Your task to perform on an android device: Is it going to rain tomorrow? Image 0: 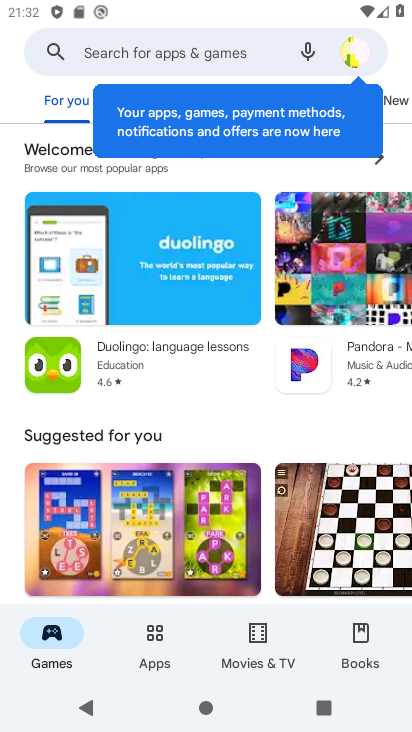
Step 0: press home button
Your task to perform on an android device: Is it going to rain tomorrow? Image 1: 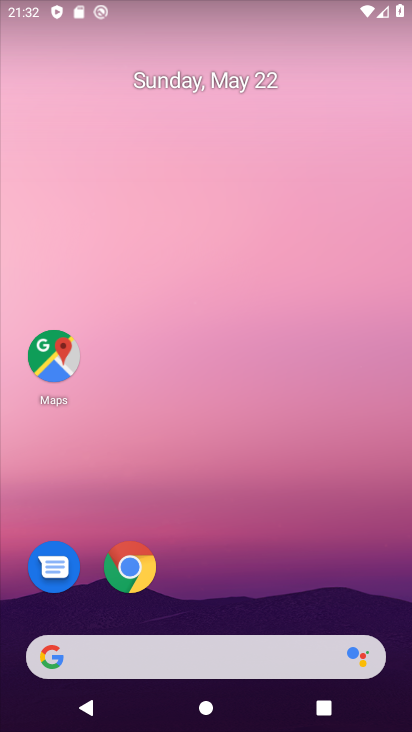
Step 1: drag from (243, 579) to (197, 245)
Your task to perform on an android device: Is it going to rain tomorrow? Image 2: 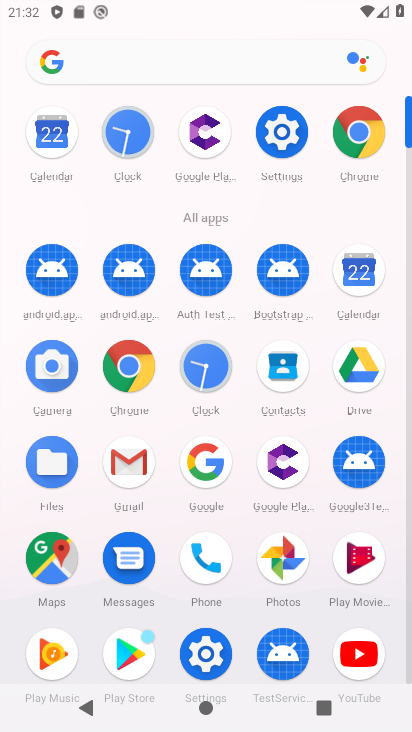
Step 2: click (145, 363)
Your task to perform on an android device: Is it going to rain tomorrow? Image 3: 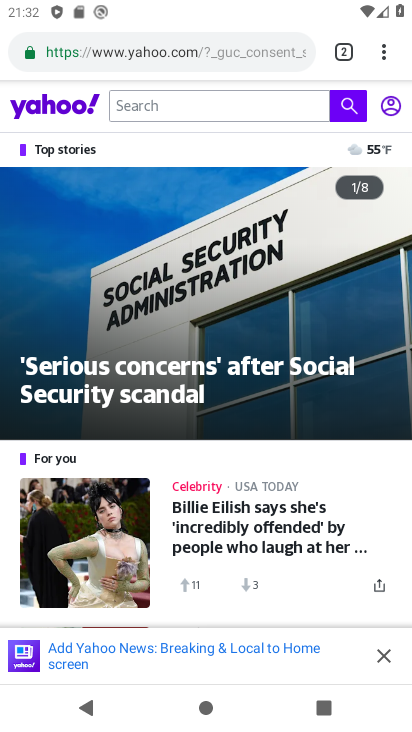
Step 3: click (390, 51)
Your task to perform on an android device: Is it going to rain tomorrow? Image 4: 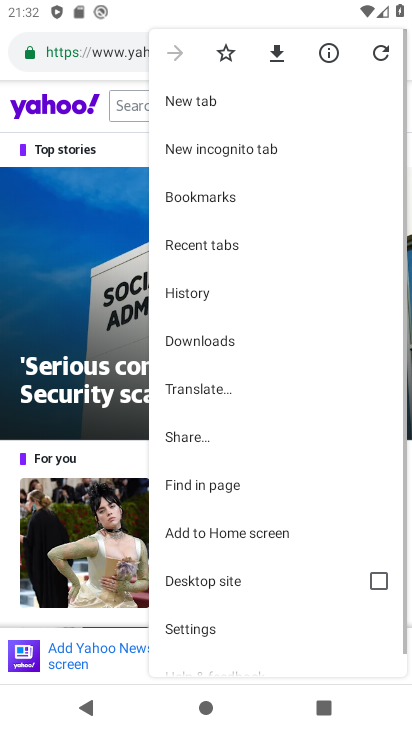
Step 4: click (216, 99)
Your task to perform on an android device: Is it going to rain tomorrow? Image 5: 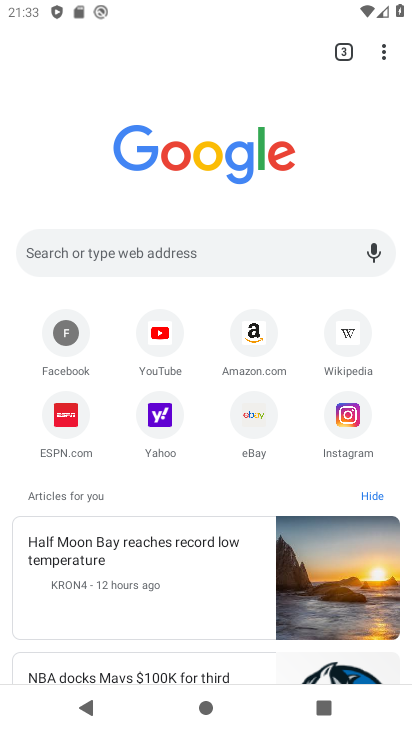
Step 5: click (220, 241)
Your task to perform on an android device: Is it going to rain tomorrow? Image 6: 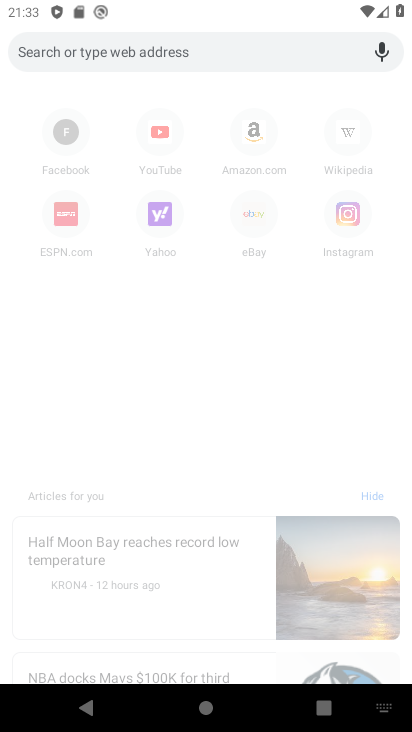
Step 6: type "Is it going to rain tomorrow?"
Your task to perform on an android device: Is it going to rain tomorrow? Image 7: 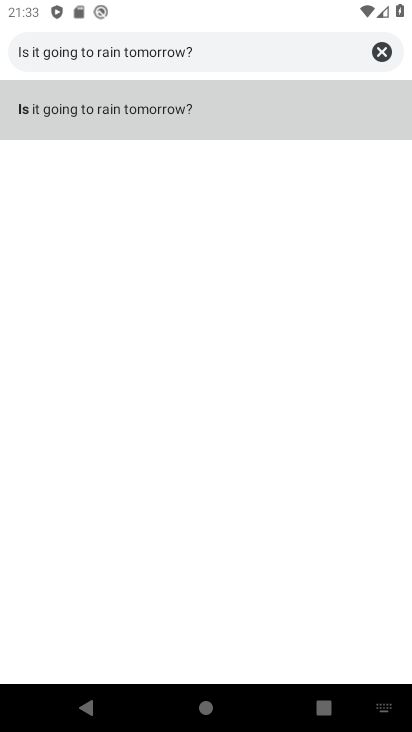
Step 7: click (122, 110)
Your task to perform on an android device: Is it going to rain tomorrow? Image 8: 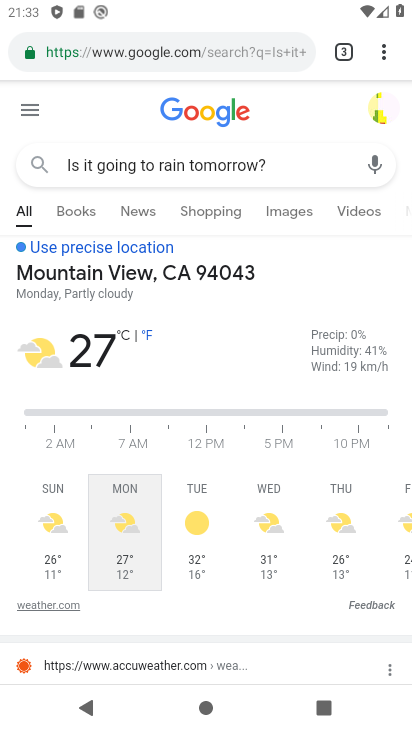
Step 8: task complete